Your task to perform on an android device: Check the weather Image 0: 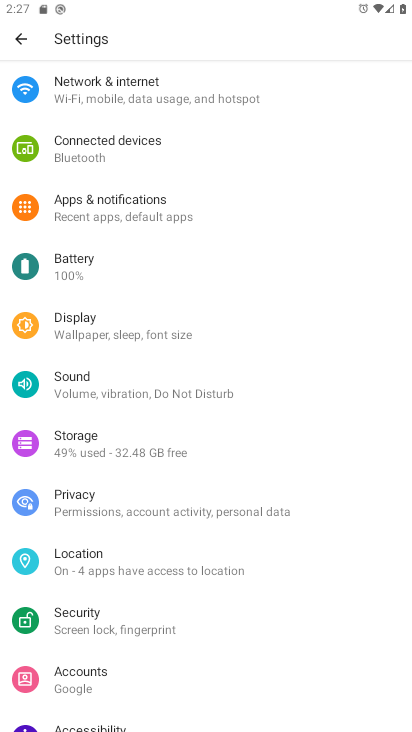
Step 0: press home button
Your task to perform on an android device: Check the weather Image 1: 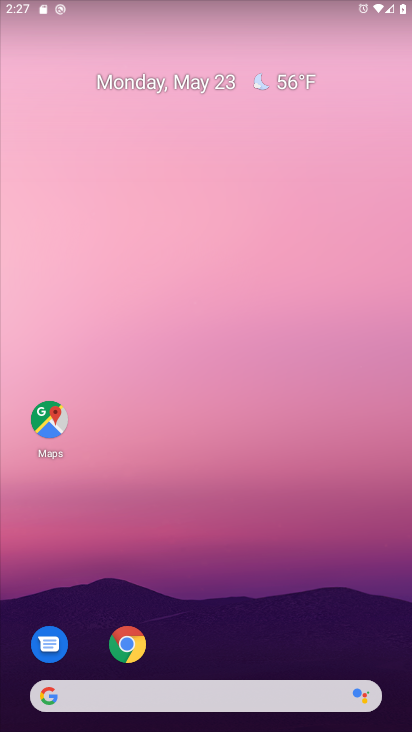
Step 1: drag from (257, 662) to (233, 0)
Your task to perform on an android device: Check the weather Image 2: 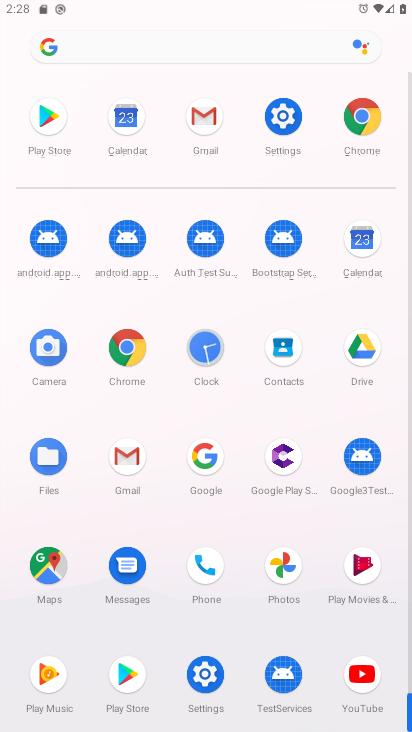
Step 2: click (283, 120)
Your task to perform on an android device: Check the weather Image 3: 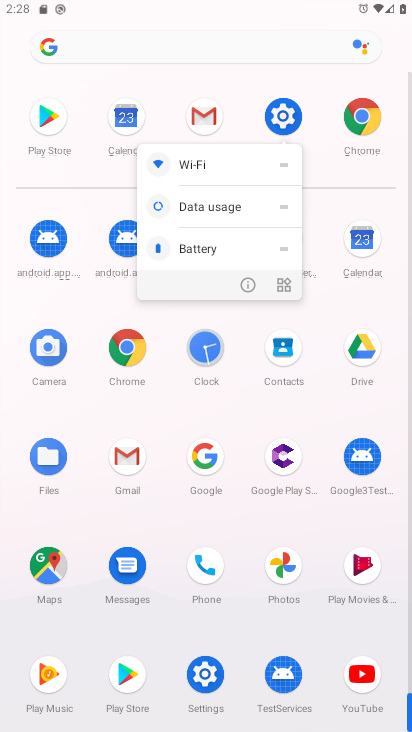
Step 3: click (215, 456)
Your task to perform on an android device: Check the weather Image 4: 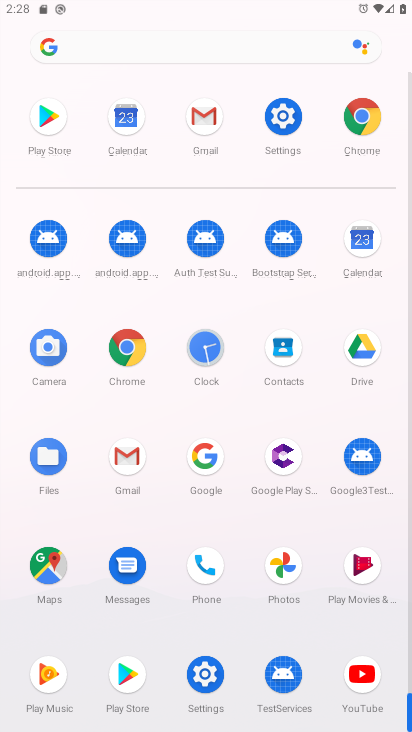
Step 4: click (211, 460)
Your task to perform on an android device: Check the weather Image 5: 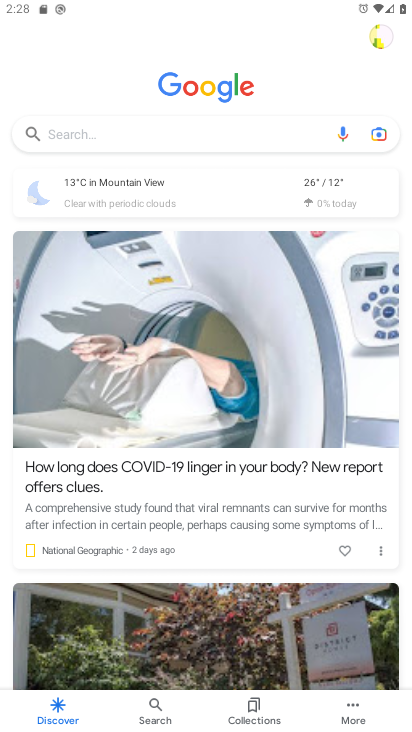
Step 5: click (115, 133)
Your task to perform on an android device: Check the weather Image 6: 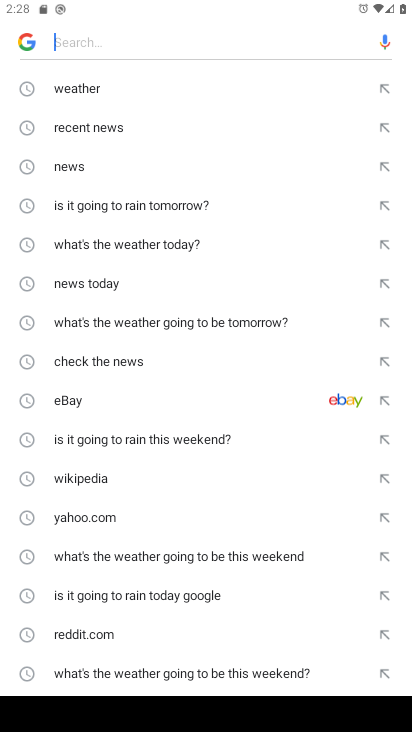
Step 6: click (77, 84)
Your task to perform on an android device: Check the weather Image 7: 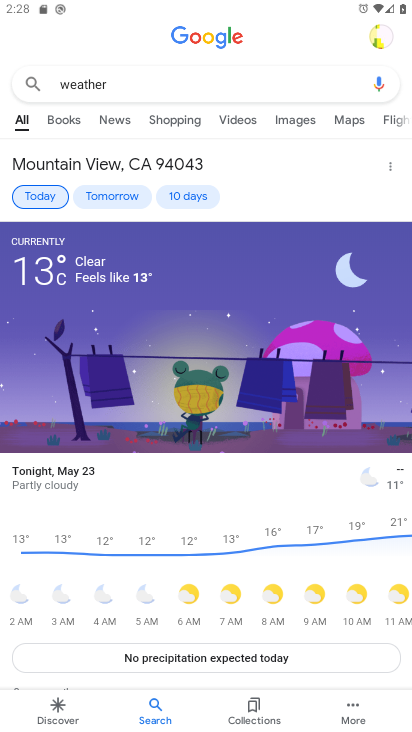
Step 7: task complete